Your task to perform on an android device: Go to privacy settings Image 0: 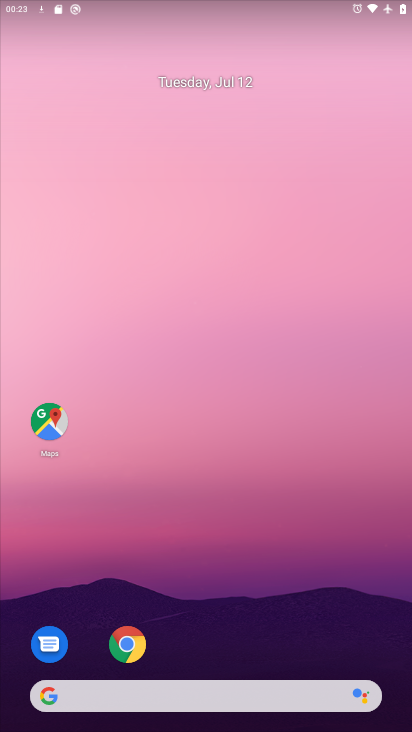
Step 0: drag from (185, 689) to (227, 331)
Your task to perform on an android device: Go to privacy settings Image 1: 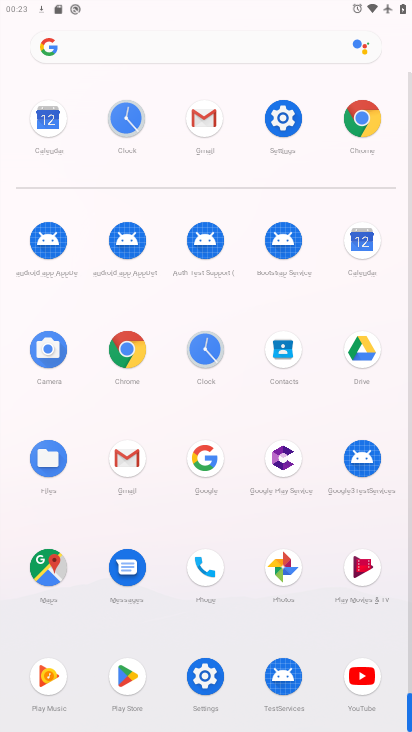
Step 1: click (286, 104)
Your task to perform on an android device: Go to privacy settings Image 2: 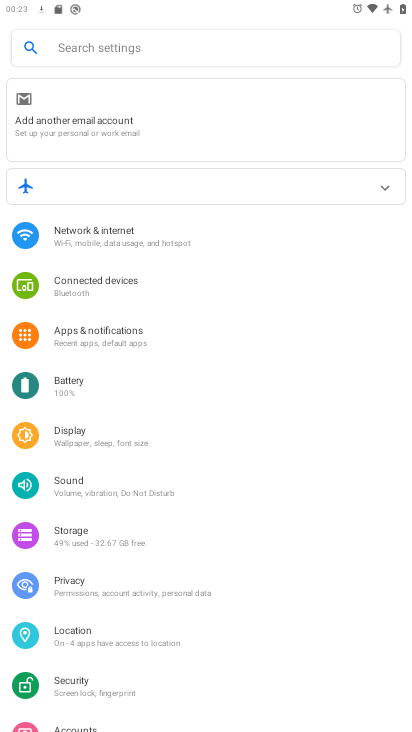
Step 2: click (113, 583)
Your task to perform on an android device: Go to privacy settings Image 3: 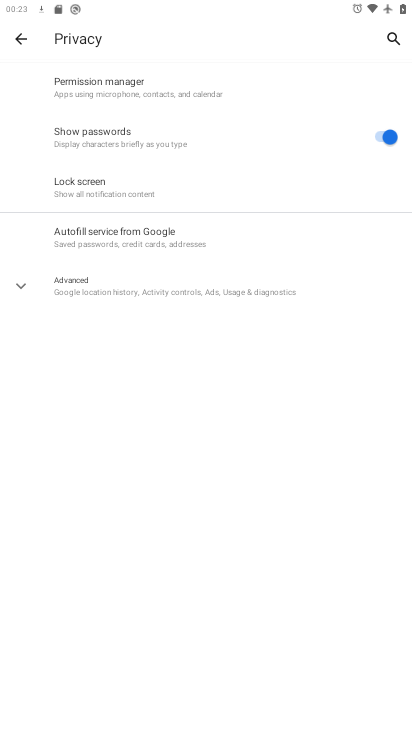
Step 3: task complete